Your task to perform on an android device: add a label to a message in the gmail app Image 0: 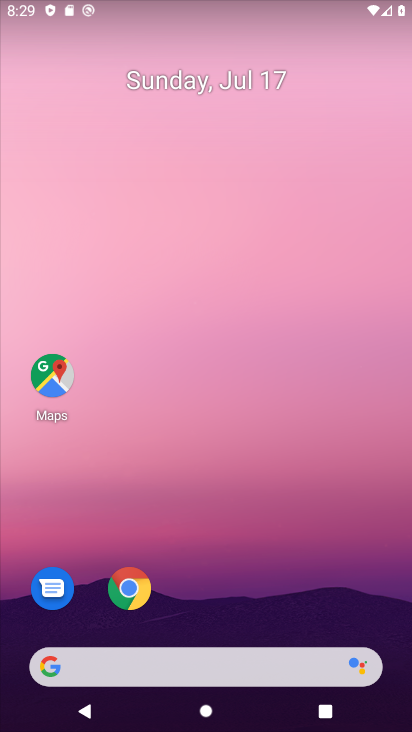
Step 0: drag from (196, 610) to (322, 532)
Your task to perform on an android device: add a label to a message in the gmail app Image 1: 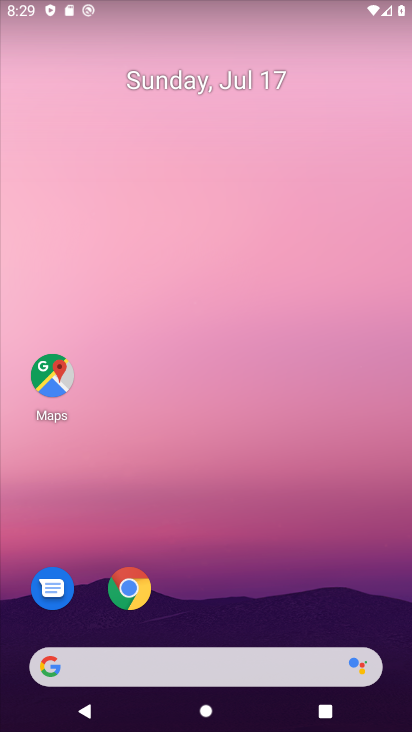
Step 1: drag from (219, 630) to (154, 0)
Your task to perform on an android device: add a label to a message in the gmail app Image 2: 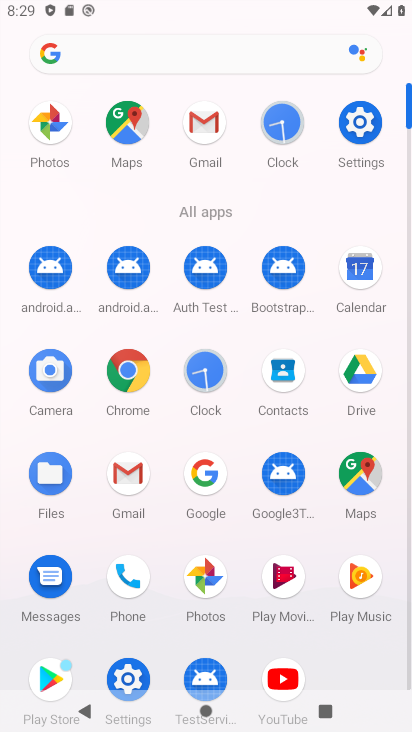
Step 2: click (140, 478)
Your task to perform on an android device: add a label to a message in the gmail app Image 3: 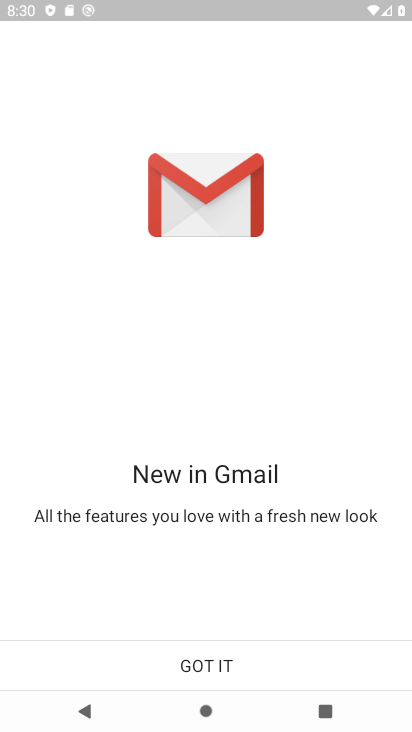
Step 3: click (191, 651)
Your task to perform on an android device: add a label to a message in the gmail app Image 4: 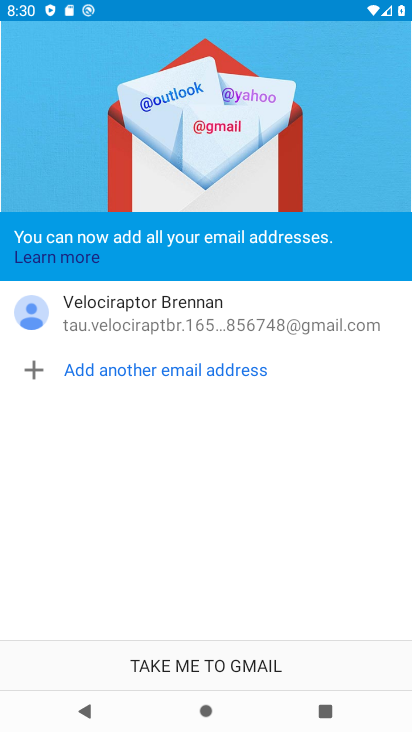
Step 4: click (218, 670)
Your task to perform on an android device: add a label to a message in the gmail app Image 5: 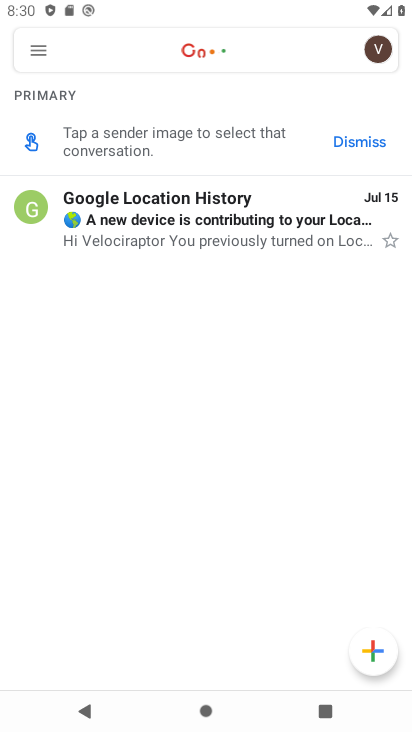
Step 5: click (133, 232)
Your task to perform on an android device: add a label to a message in the gmail app Image 6: 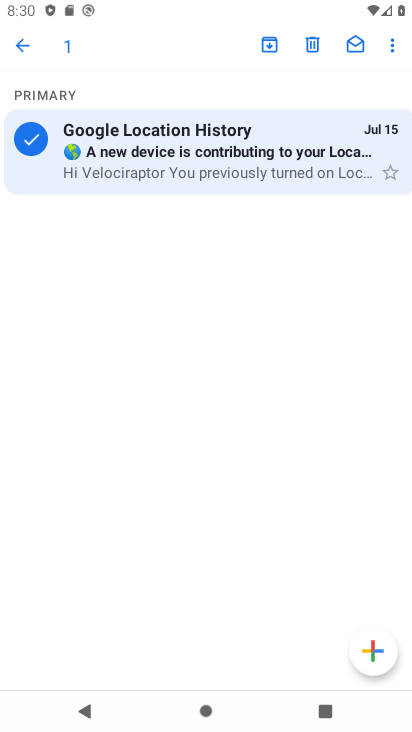
Step 6: click (390, 48)
Your task to perform on an android device: add a label to a message in the gmail app Image 7: 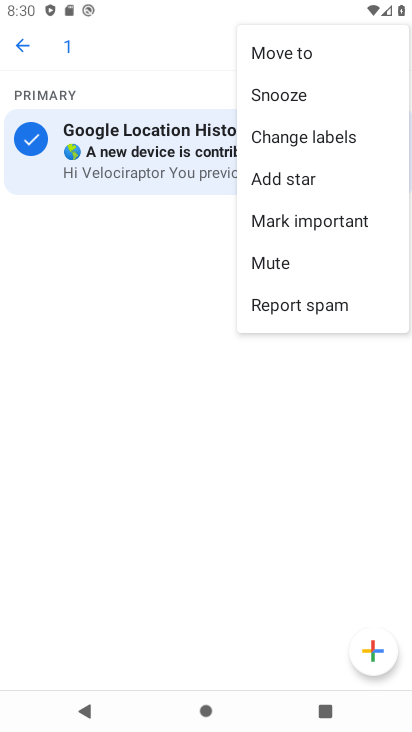
Step 7: click (312, 141)
Your task to perform on an android device: add a label to a message in the gmail app Image 8: 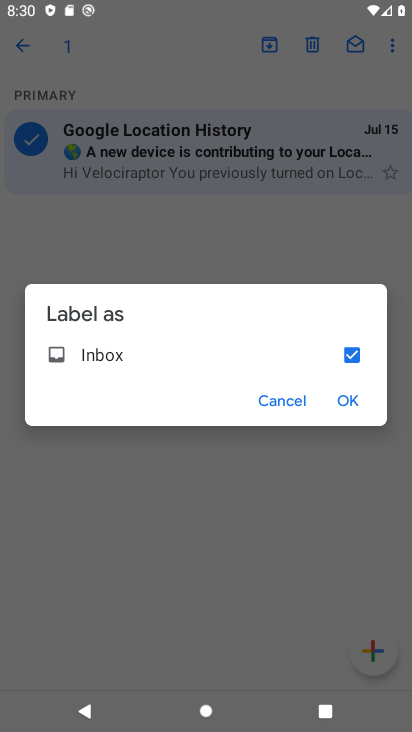
Step 8: click (351, 390)
Your task to perform on an android device: add a label to a message in the gmail app Image 9: 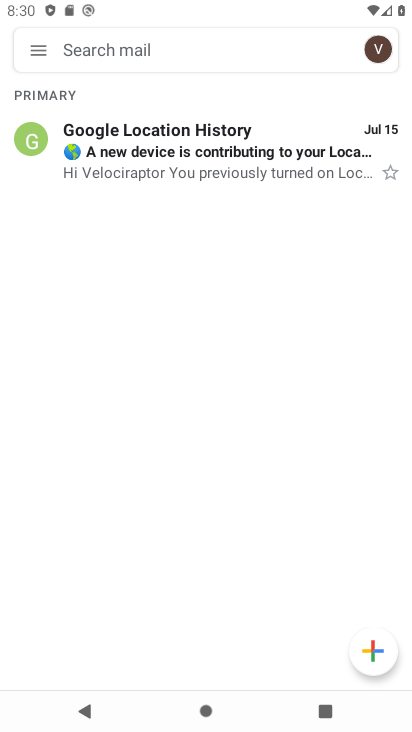
Step 9: task complete